Your task to perform on an android device: choose inbox layout in the gmail app Image 0: 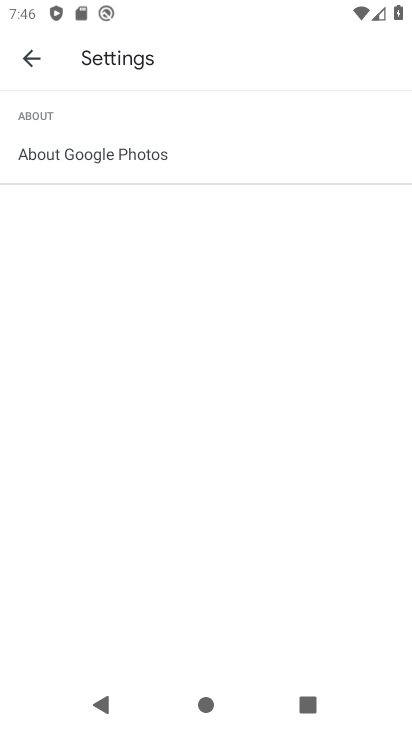
Step 0: press home button
Your task to perform on an android device: choose inbox layout in the gmail app Image 1: 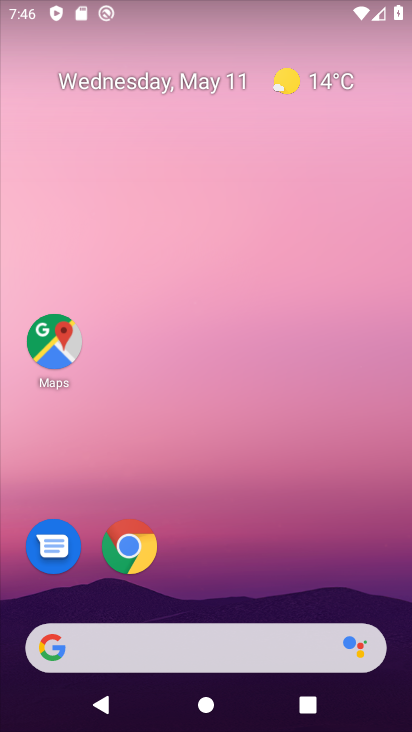
Step 1: drag from (273, 539) to (280, 76)
Your task to perform on an android device: choose inbox layout in the gmail app Image 2: 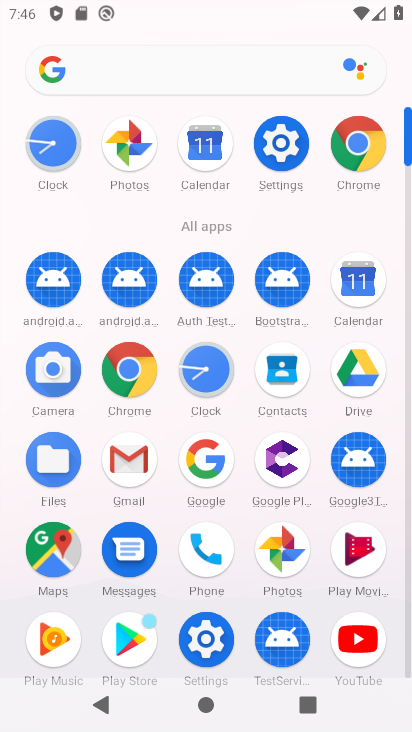
Step 2: click (130, 472)
Your task to perform on an android device: choose inbox layout in the gmail app Image 3: 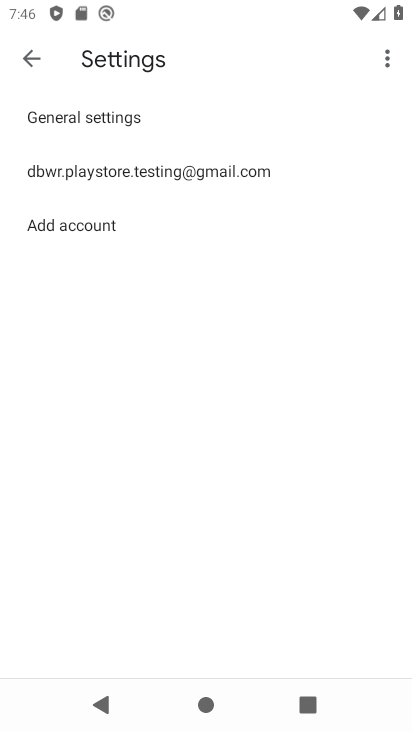
Step 3: click (174, 174)
Your task to perform on an android device: choose inbox layout in the gmail app Image 4: 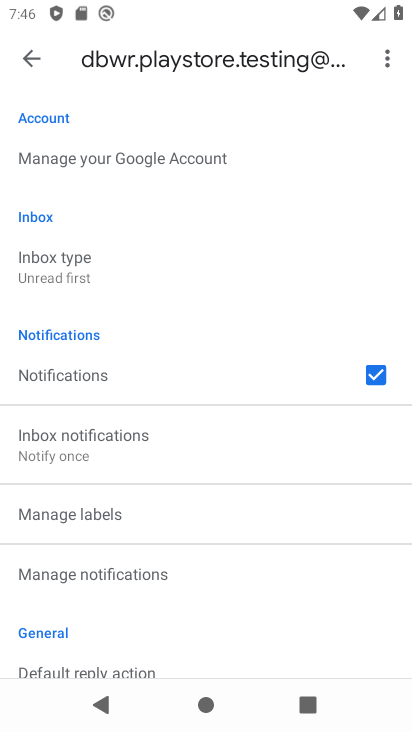
Step 4: drag from (122, 261) to (140, 524)
Your task to perform on an android device: choose inbox layout in the gmail app Image 5: 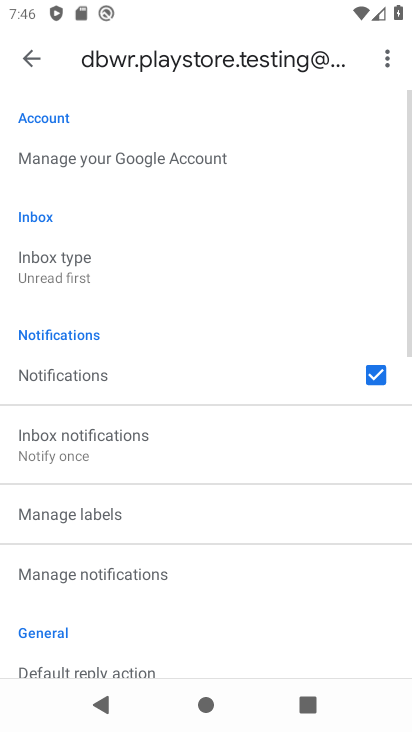
Step 5: click (73, 269)
Your task to perform on an android device: choose inbox layout in the gmail app Image 6: 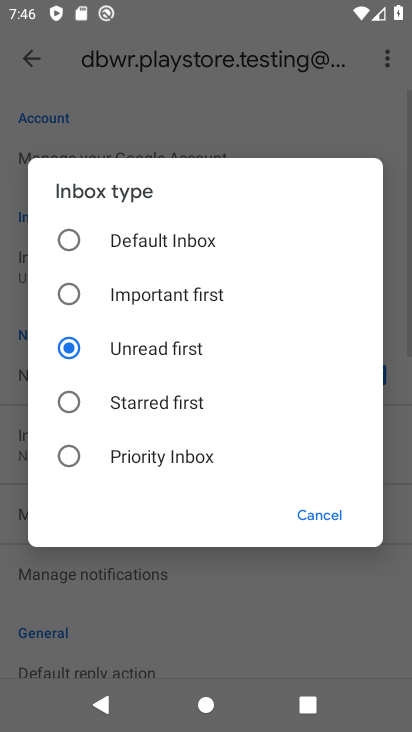
Step 6: task complete